Your task to perform on an android device: What is the news today? Image 0: 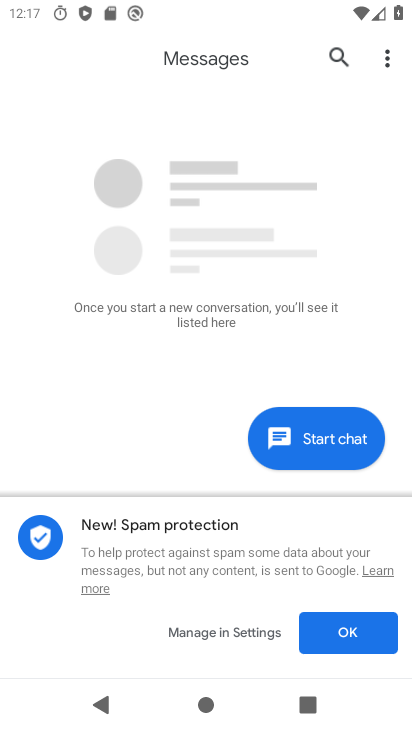
Step 0: press home button
Your task to perform on an android device: What is the news today? Image 1: 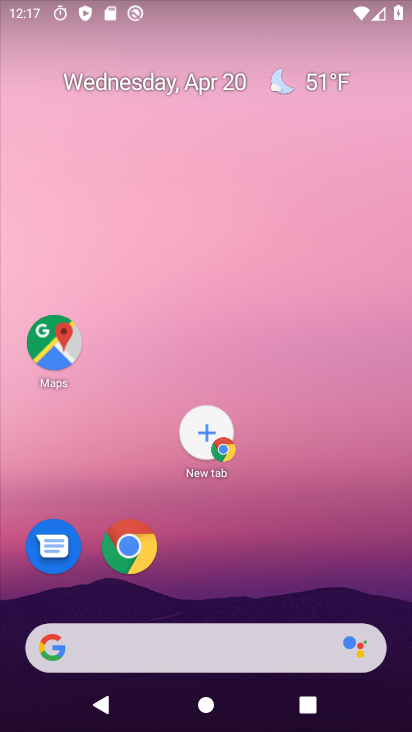
Step 1: click (247, 645)
Your task to perform on an android device: What is the news today? Image 2: 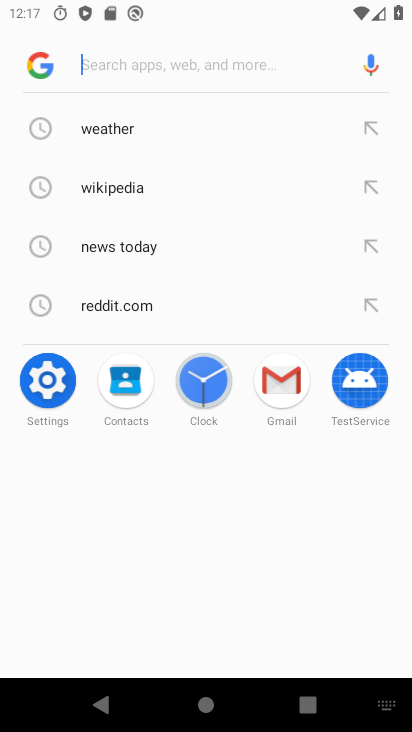
Step 2: click (48, 81)
Your task to perform on an android device: What is the news today? Image 3: 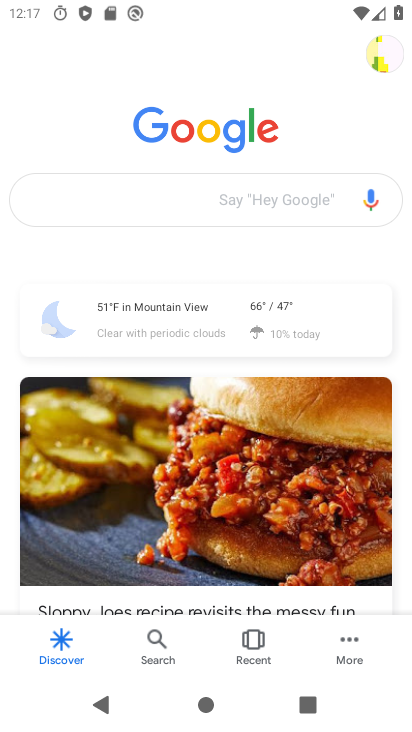
Step 3: task complete